Your task to perform on an android device: see sites visited before in the chrome app Image 0: 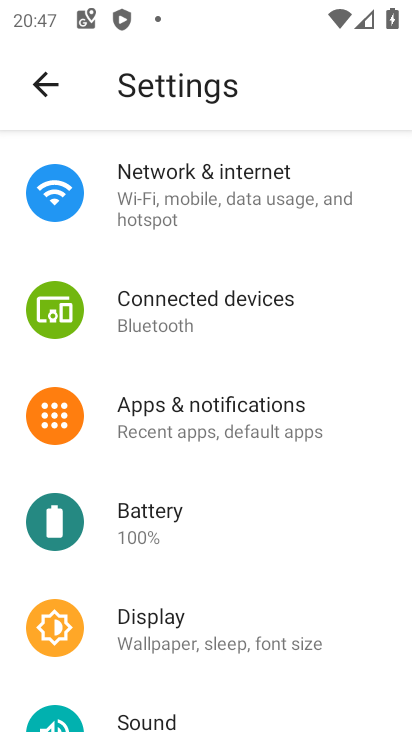
Step 0: press home button
Your task to perform on an android device: see sites visited before in the chrome app Image 1: 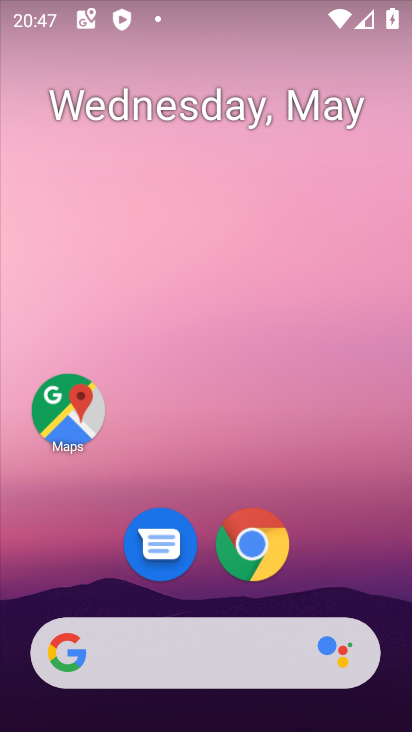
Step 1: click (253, 552)
Your task to perform on an android device: see sites visited before in the chrome app Image 2: 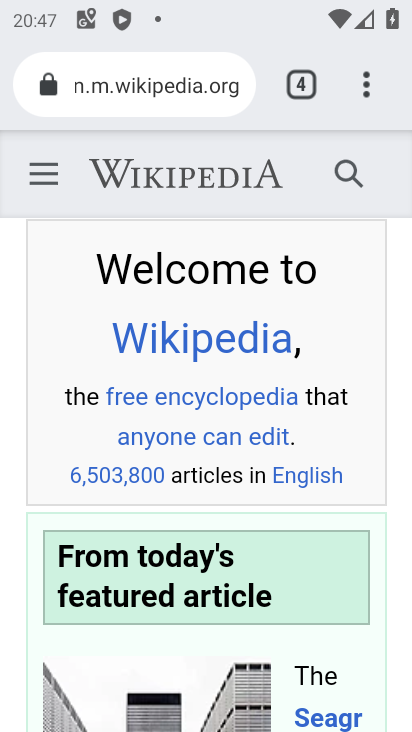
Step 2: click (380, 73)
Your task to perform on an android device: see sites visited before in the chrome app Image 3: 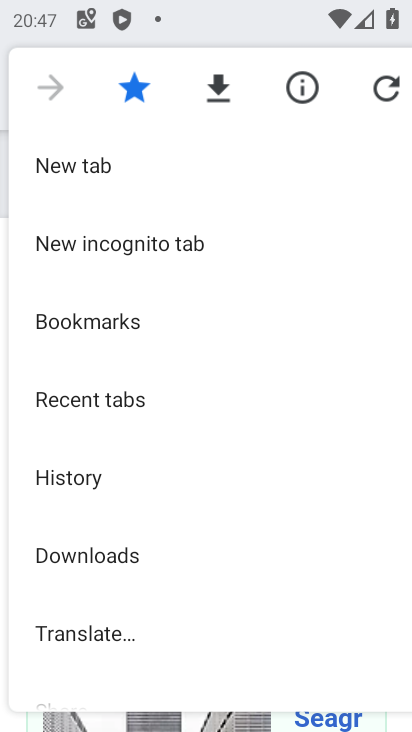
Step 3: click (98, 461)
Your task to perform on an android device: see sites visited before in the chrome app Image 4: 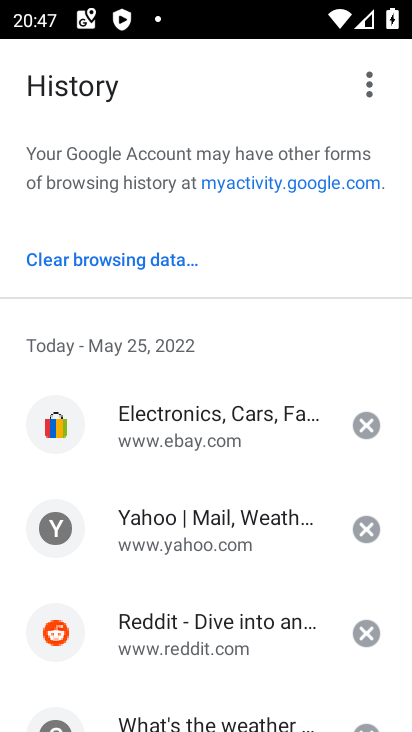
Step 4: task complete